Your task to perform on an android device: change the clock display to show seconds Image 0: 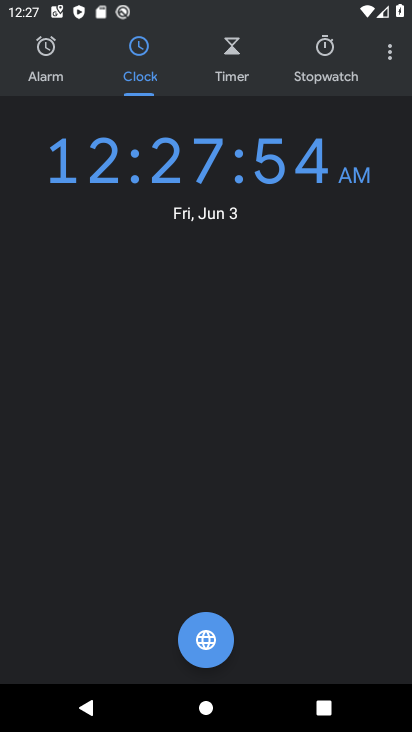
Step 0: click (388, 54)
Your task to perform on an android device: change the clock display to show seconds Image 1: 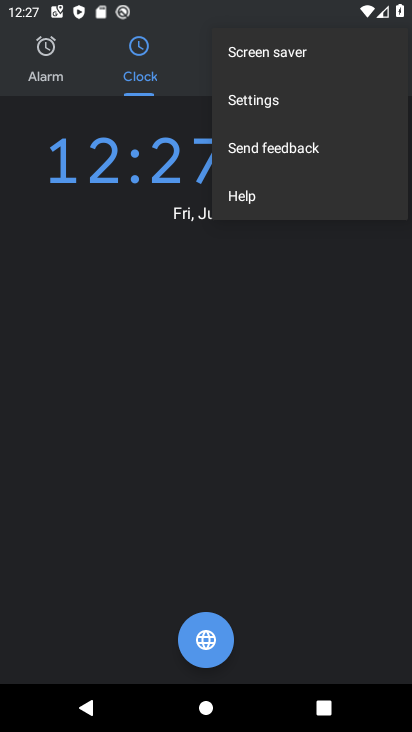
Step 1: click (327, 122)
Your task to perform on an android device: change the clock display to show seconds Image 2: 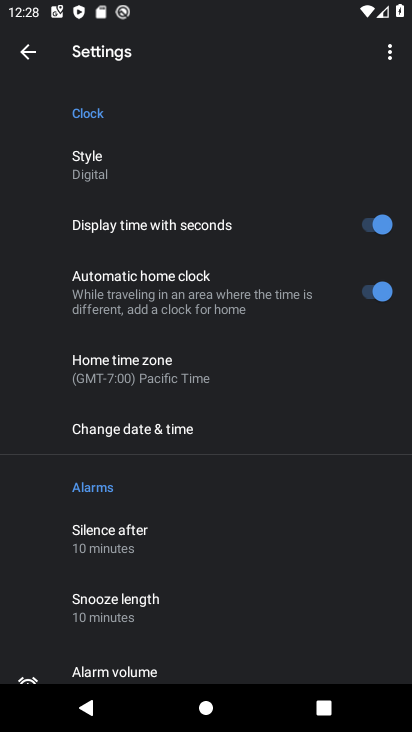
Step 2: drag from (306, 231) to (311, 287)
Your task to perform on an android device: change the clock display to show seconds Image 3: 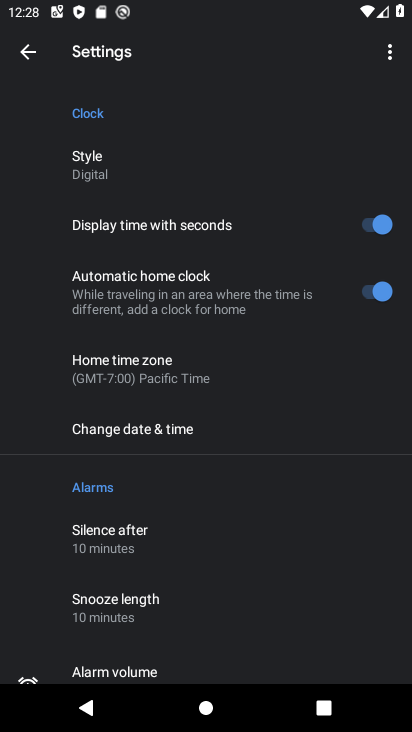
Step 3: click (378, 251)
Your task to perform on an android device: change the clock display to show seconds Image 4: 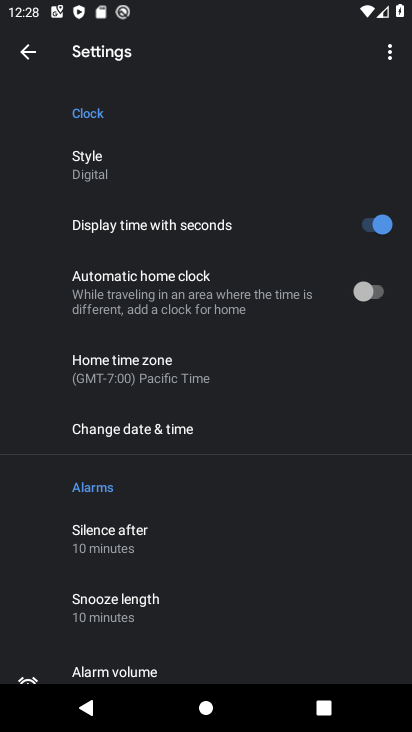
Step 4: task complete